Your task to perform on an android device: Open Google Chrome Image 0: 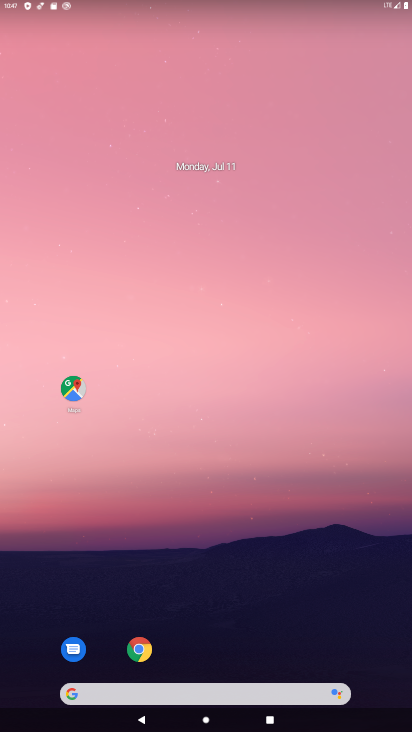
Step 0: drag from (252, 599) to (248, 151)
Your task to perform on an android device: Open Google Chrome Image 1: 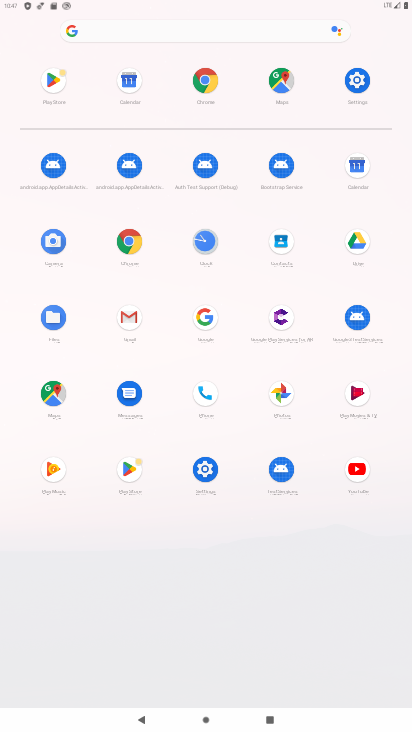
Step 1: click (129, 240)
Your task to perform on an android device: Open Google Chrome Image 2: 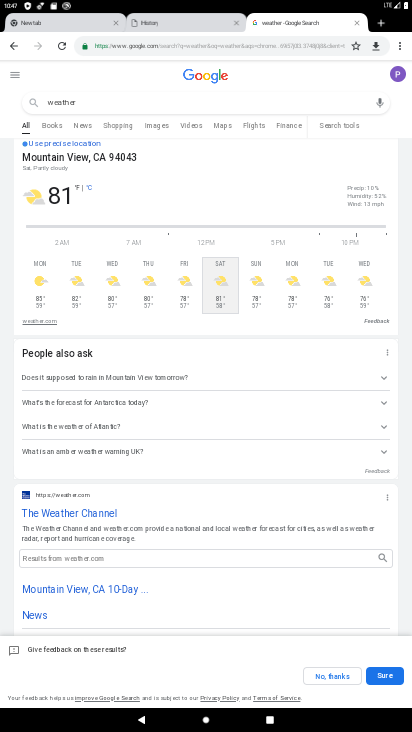
Step 2: task complete